Your task to perform on an android device: turn pop-ups on in chrome Image 0: 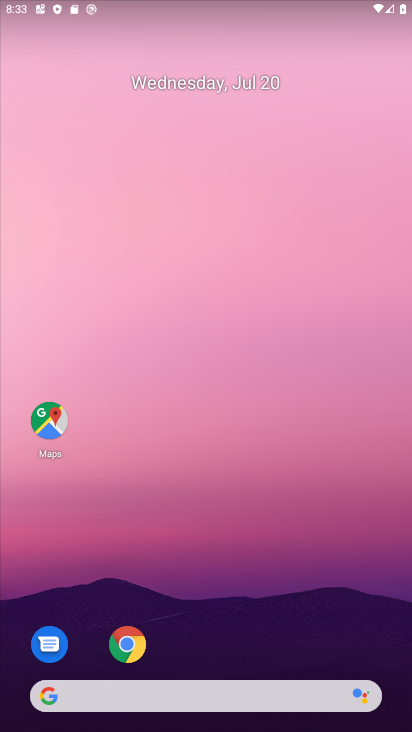
Step 0: click (138, 651)
Your task to perform on an android device: turn pop-ups on in chrome Image 1: 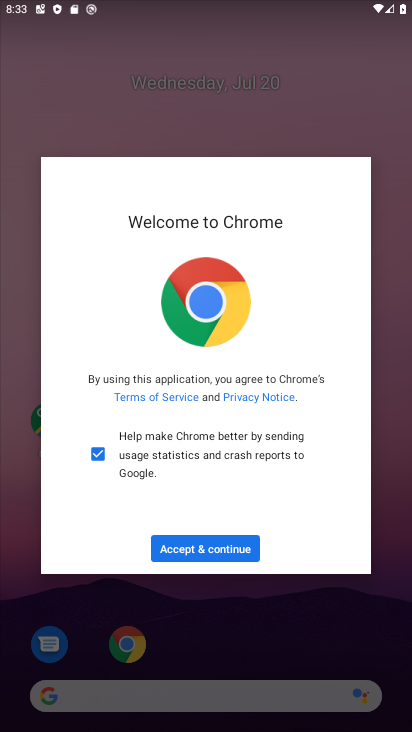
Step 1: click (218, 549)
Your task to perform on an android device: turn pop-ups on in chrome Image 2: 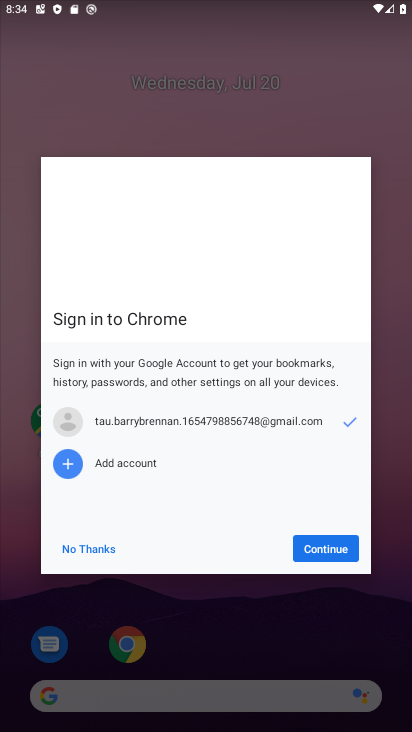
Step 2: click (337, 541)
Your task to perform on an android device: turn pop-ups on in chrome Image 3: 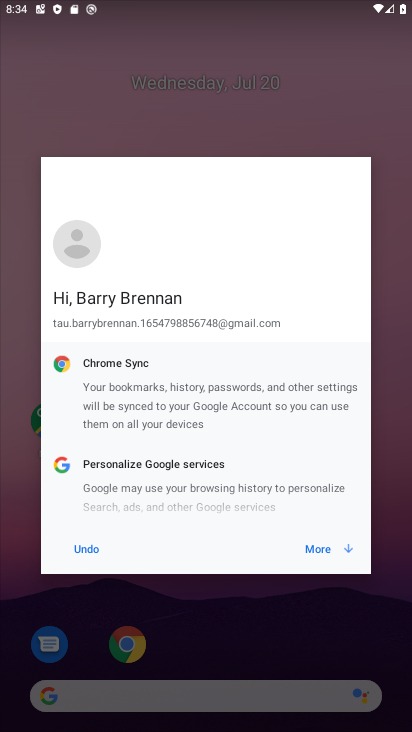
Step 3: click (337, 541)
Your task to perform on an android device: turn pop-ups on in chrome Image 4: 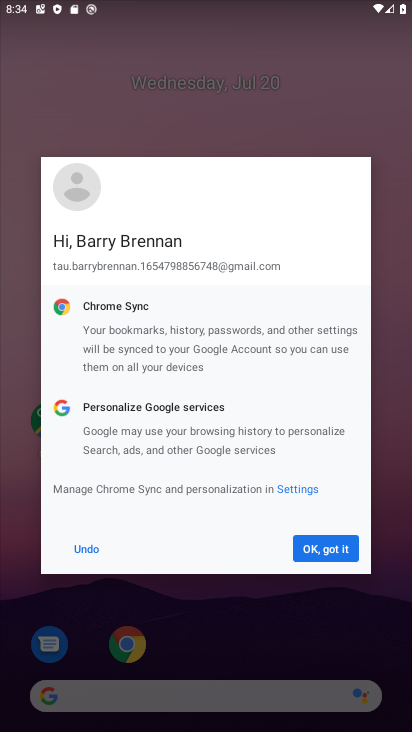
Step 4: click (337, 541)
Your task to perform on an android device: turn pop-ups on in chrome Image 5: 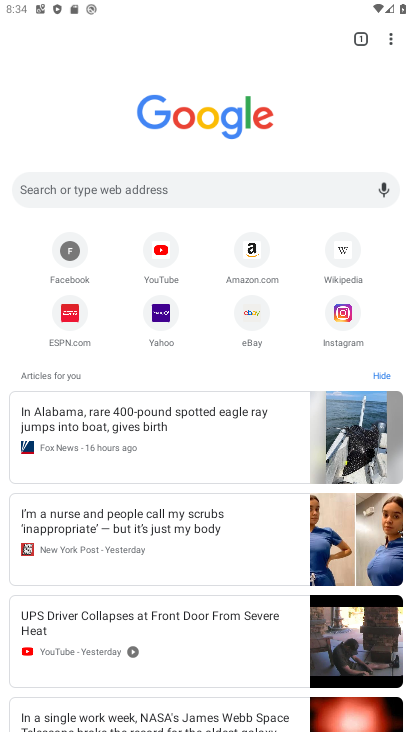
Step 5: click (393, 26)
Your task to perform on an android device: turn pop-ups on in chrome Image 6: 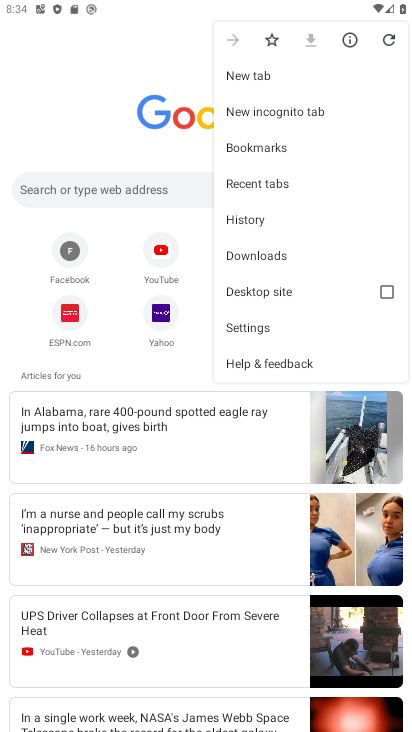
Step 6: click (258, 322)
Your task to perform on an android device: turn pop-ups on in chrome Image 7: 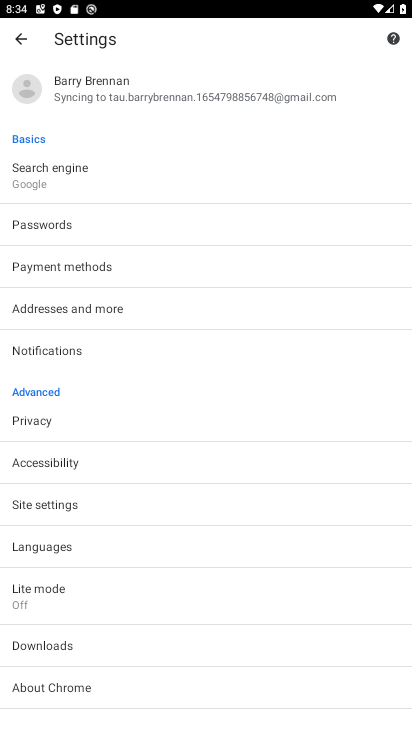
Step 7: click (68, 508)
Your task to perform on an android device: turn pop-ups on in chrome Image 8: 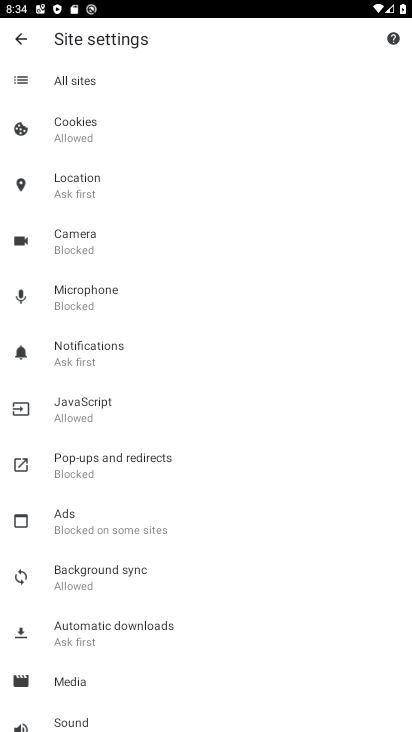
Step 8: click (87, 472)
Your task to perform on an android device: turn pop-ups on in chrome Image 9: 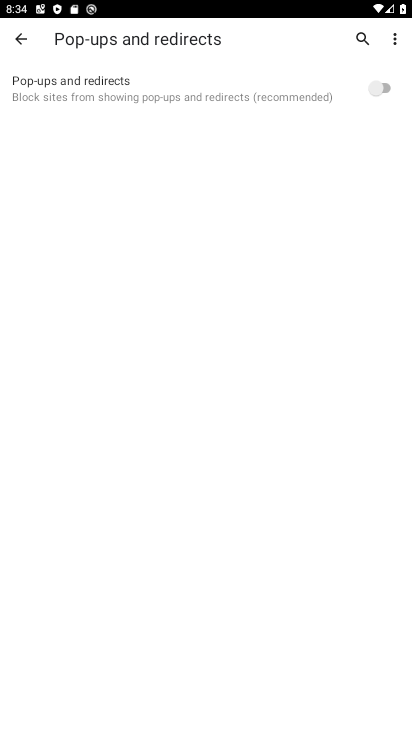
Step 9: click (372, 90)
Your task to perform on an android device: turn pop-ups on in chrome Image 10: 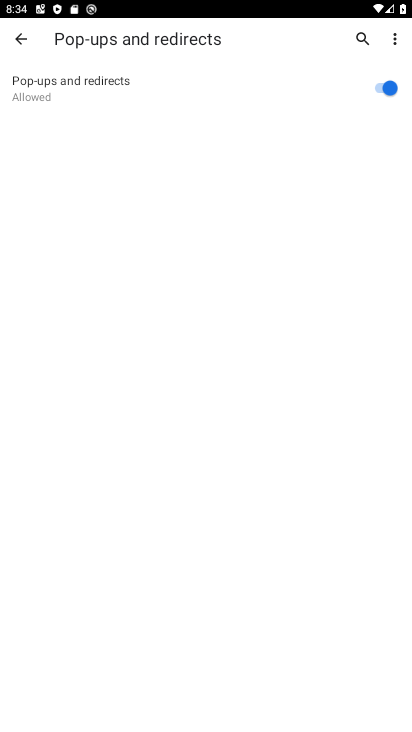
Step 10: task complete